Your task to perform on an android device: What's the weather? Image 0: 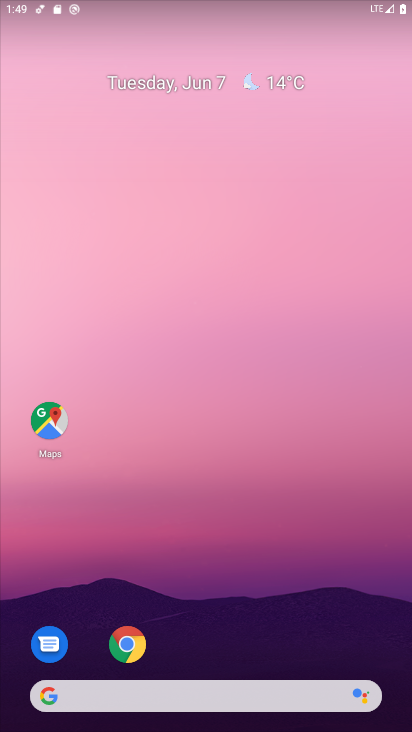
Step 0: click (140, 686)
Your task to perform on an android device: What's the weather? Image 1: 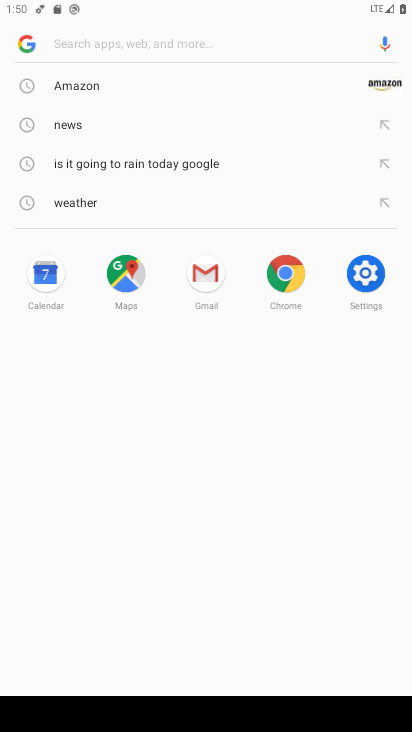
Step 1: type "what's the weather "
Your task to perform on an android device: What's the weather? Image 2: 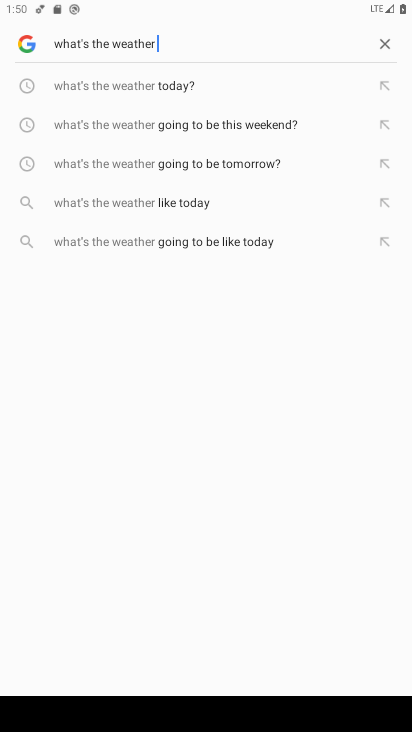
Step 2: click (132, 71)
Your task to perform on an android device: What's the weather? Image 3: 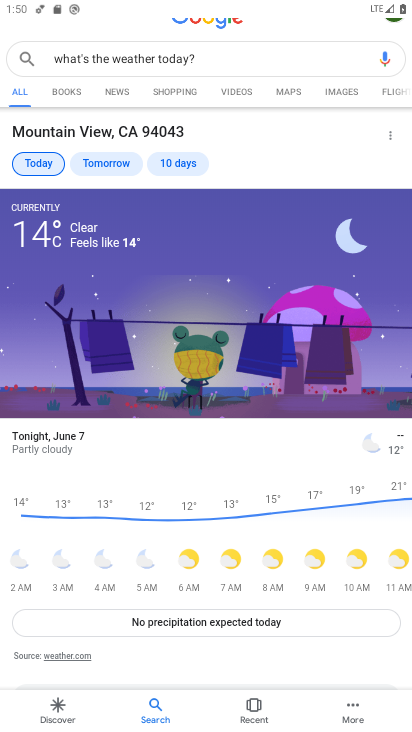
Step 3: task complete